Your task to perform on an android device: Do I have any events today? Image 0: 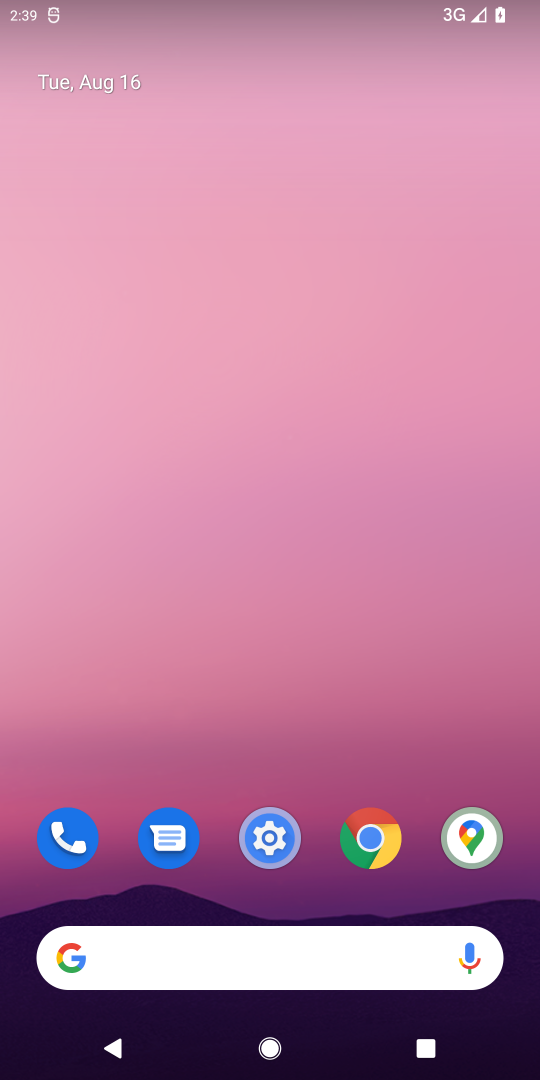
Step 0: drag from (261, 751) to (241, 28)
Your task to perform on an android device: Do I have any events today? Image 1: 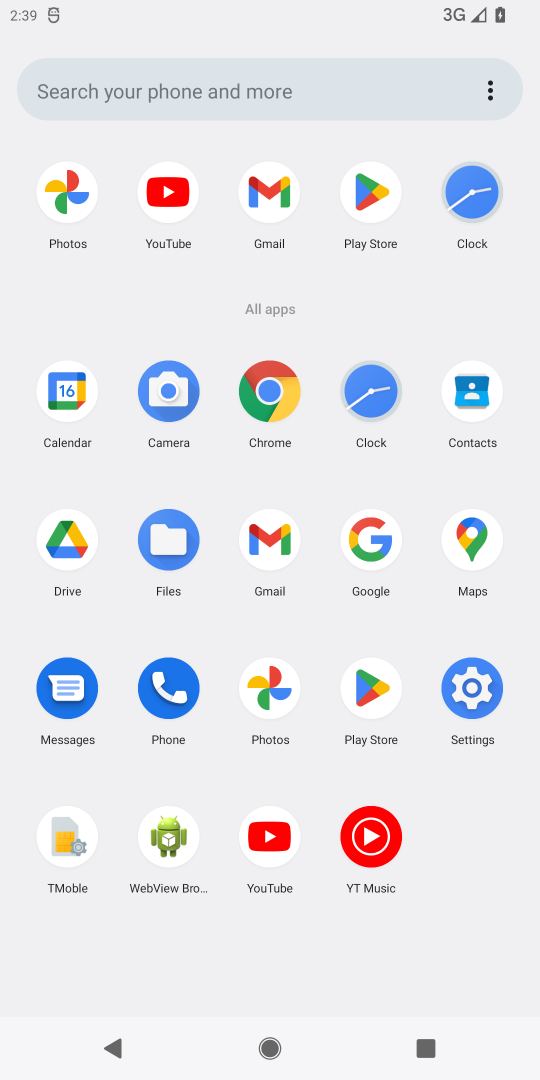
Step 1: click (35, 400)
Your task to perform on an android device: Do I have any events today? Image 2: 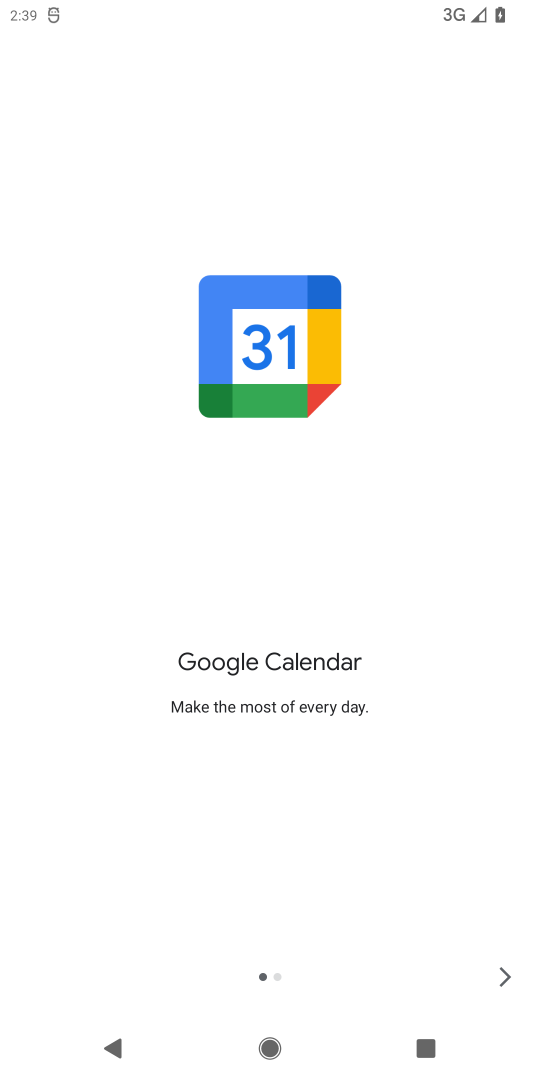
Step 2: click (514, 973)
Your task to perform on an android device: Do I have any events today? Image 3: 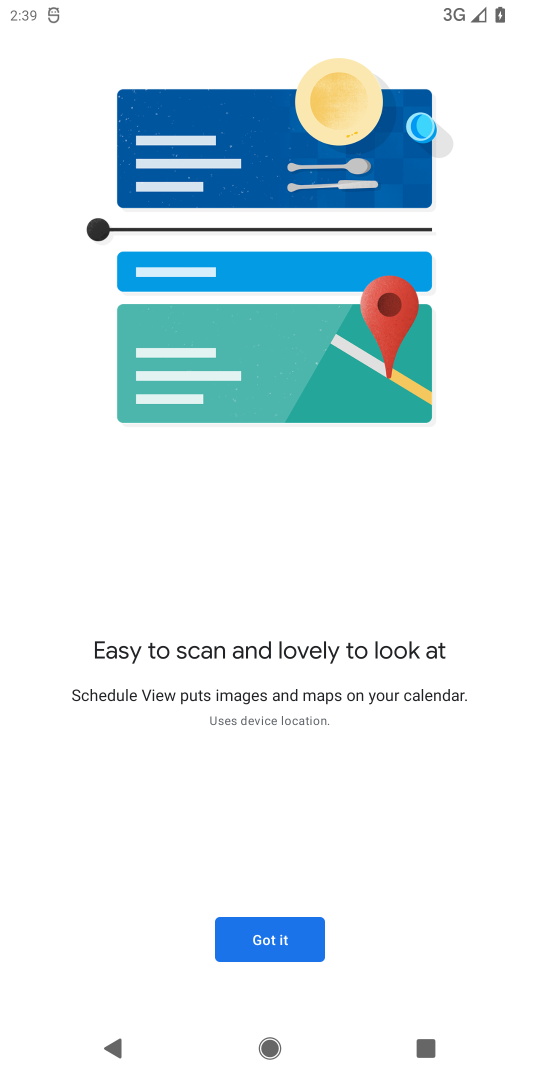
Step 3: click (292, 931)
Your task to perform on an android device: Do I have any events today? Image 4: 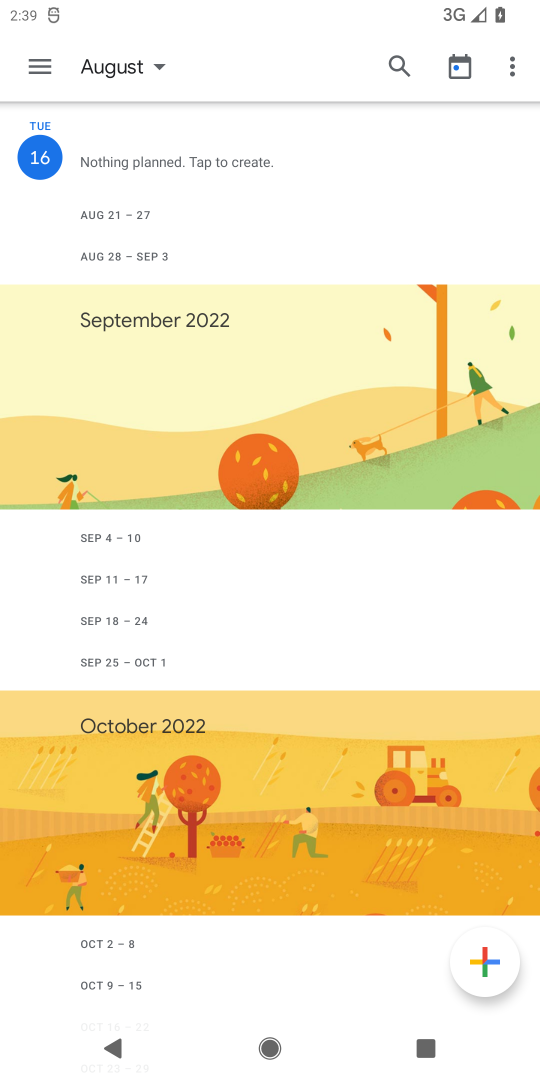
Step 4: click (52, 158)
Your task to perform on an android device: Do I have any events today? Image 5: 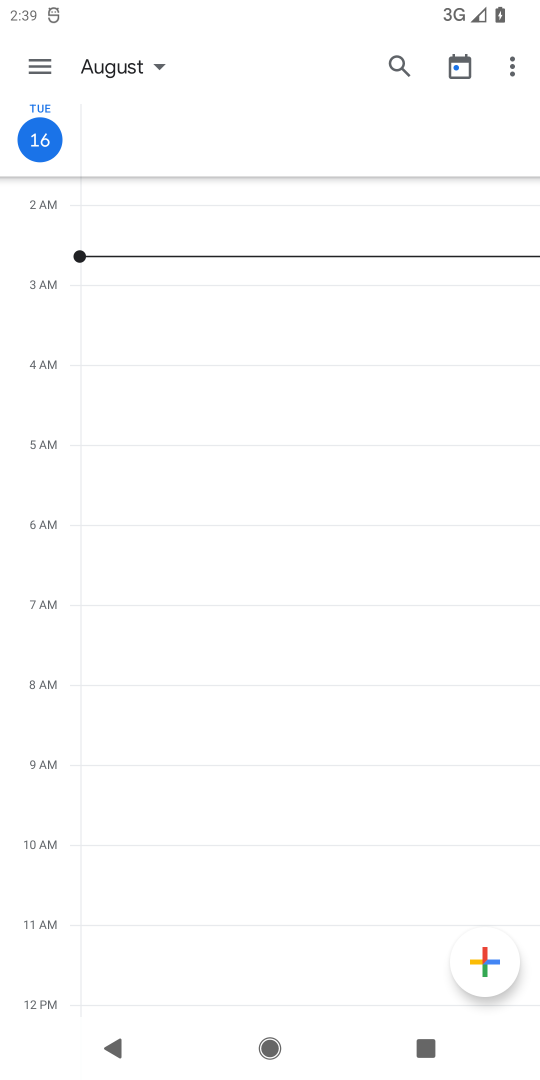
Step 5: task complete